Your task to perform on an android device: move an email to a new category in the gmail app Image 0: 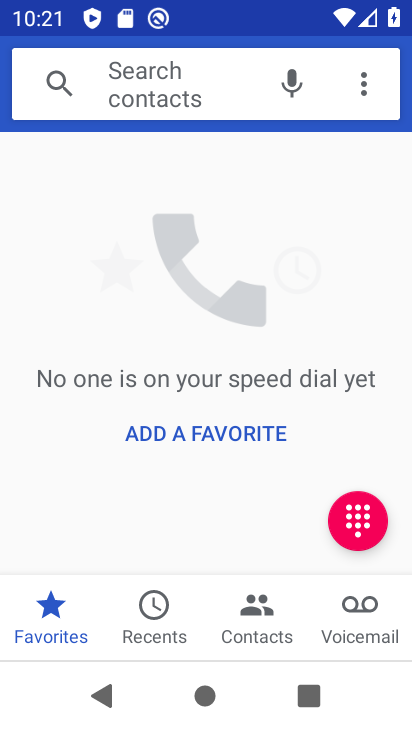
Step 0: press back button
Your task to perform on an android device: move an email to a new category in the gmail app Image 1: 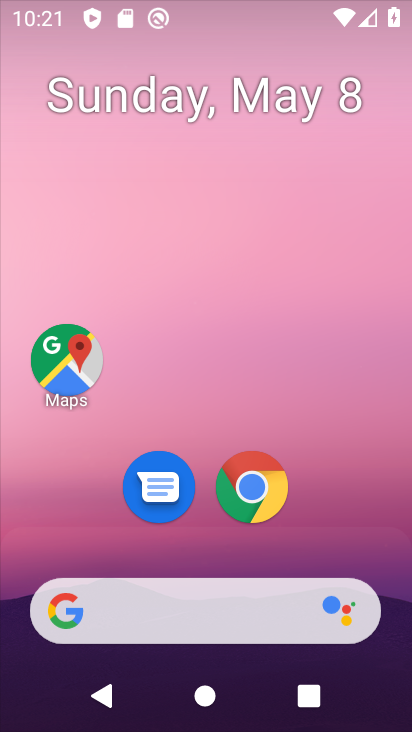
Step 1: drag from (231, 439) to (288, 76)
Your task to perform on an android device: move an email to a new category in the gmail app Image 2: 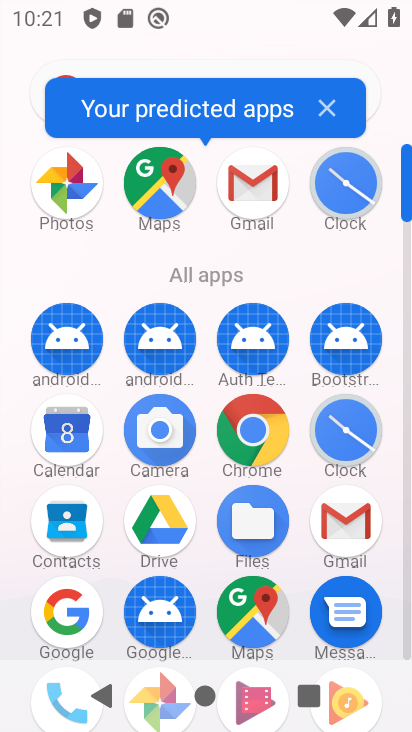
Step 2: click (247, 180)
Your task to perform on an android device: move an email to a new category in the gmail app Image 3: 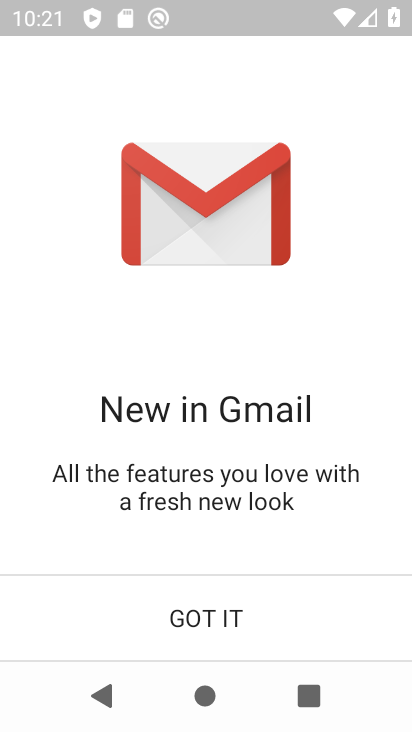
Step 3: click (205, 612)
Your task to perform on an android device: move an email to a new category in the gmail app Image 4: 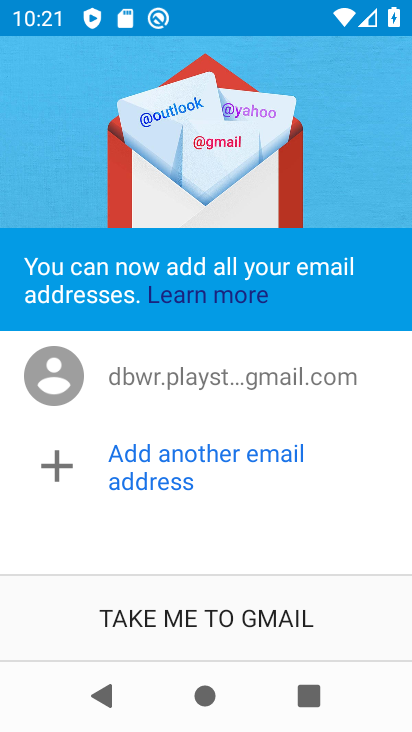
Step 4: click (205, 615)
Your task to perform on an android device: move an email to a new category in the gmail app Image 5: 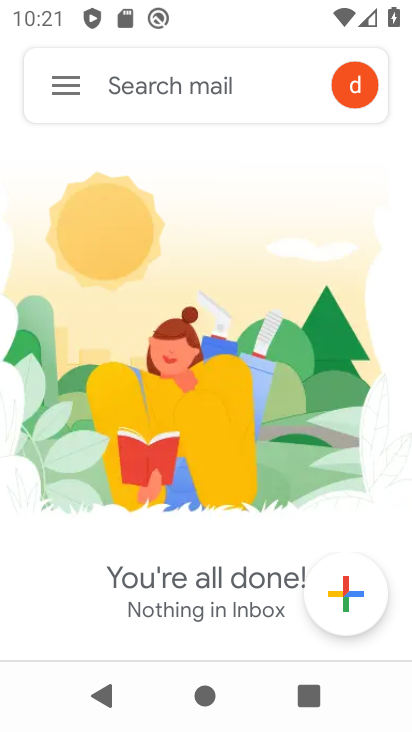
Step 5: click (73, 79)
Your task to perform on an android device: move an email to a new category in the gmail app Image 6: 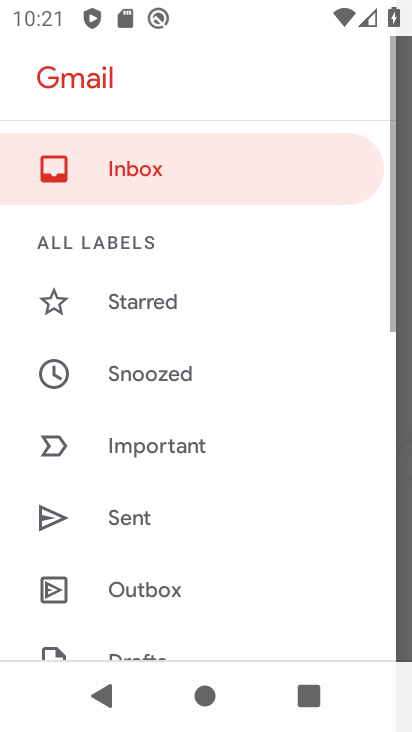
Step 6: drag from (175, 594) to (267, 91)
Your task to perform on an android device: move an email to a new category in the gmail app Image 7: 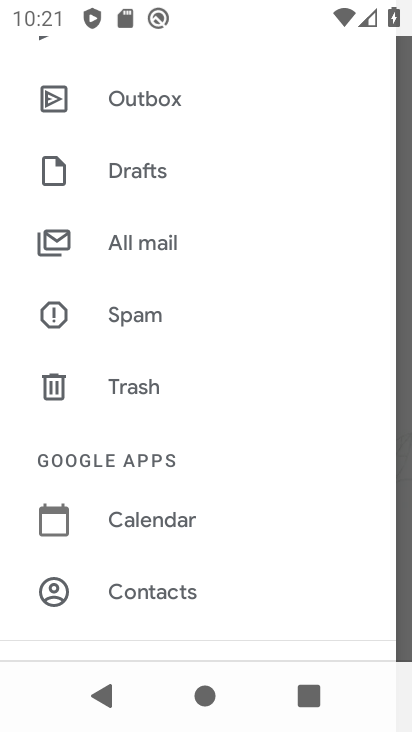
Step 7: click (136, 227)
Your task to perform on an android device: move an email to a new category in the gmail app Image 8: 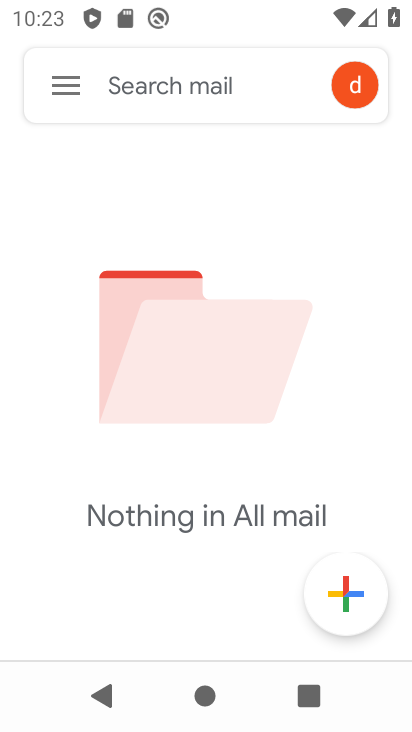
Step 8: task complete